Your task to perform on an android device: Turn off the flashlight Image 0: 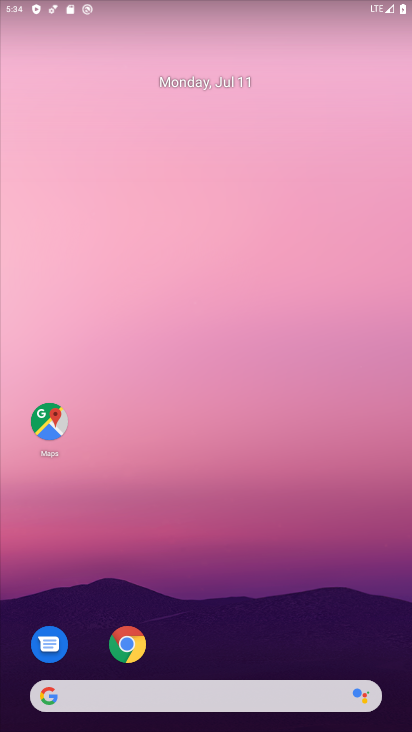
Step 0: drag from (222, 0) to (170, 645)
Your task to perform on an android device: Turn off the flashlight Image 1: 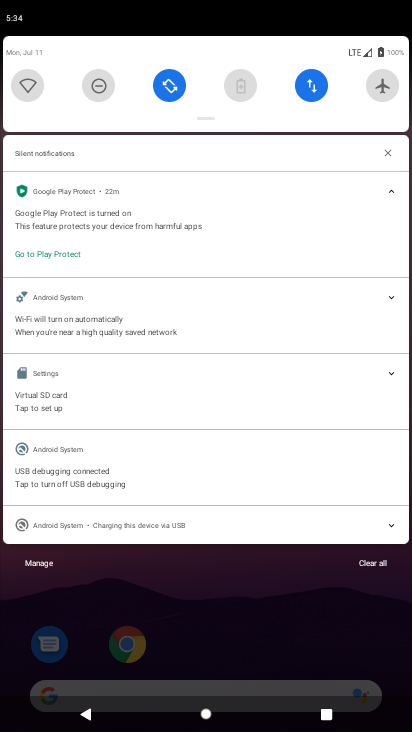
Step 1: task complete